Your task to perform on an android device: Search for the new lego star wars 2021 on Target Image 0: 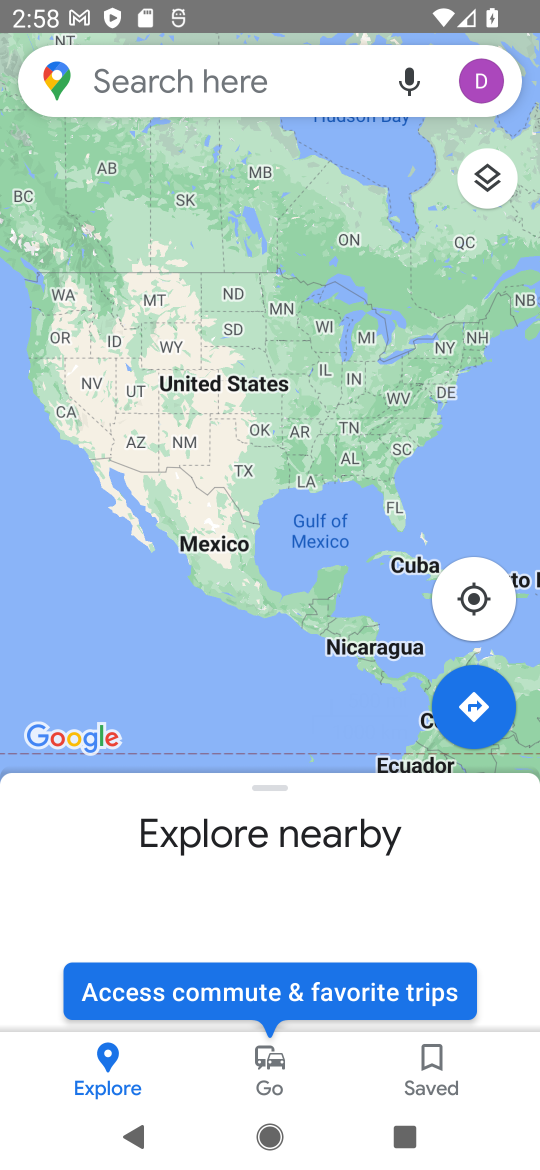
Step 0: press home button
Your task to perform on an android device: Search for the new lego star wars 2021 on Target Image 1: 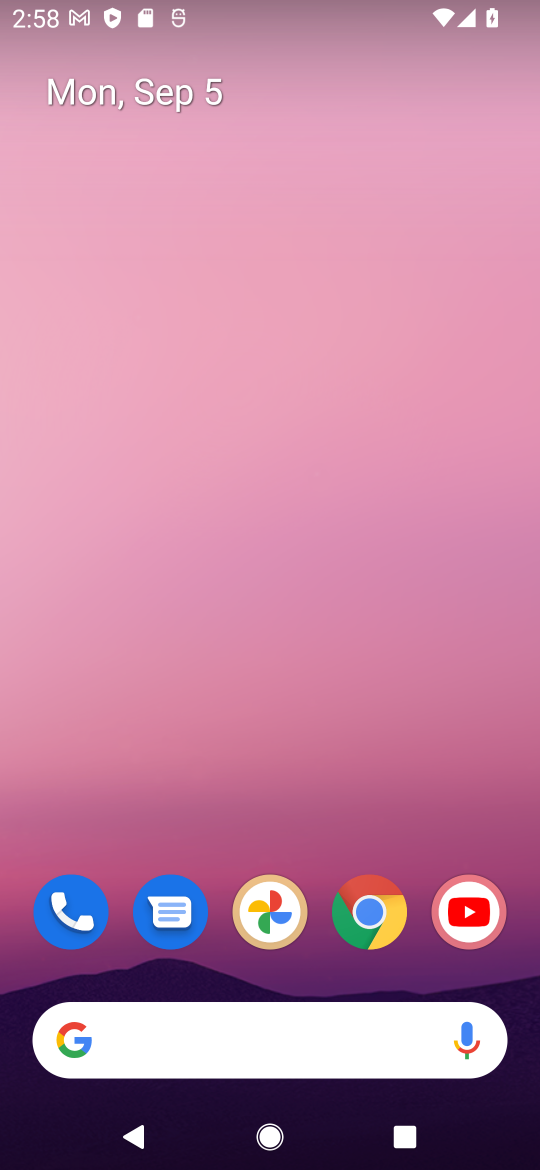
Step 1: click (367, 929)
Your task to perform on an android device: Search for the new lego star wars 2021 on Target Image 2: 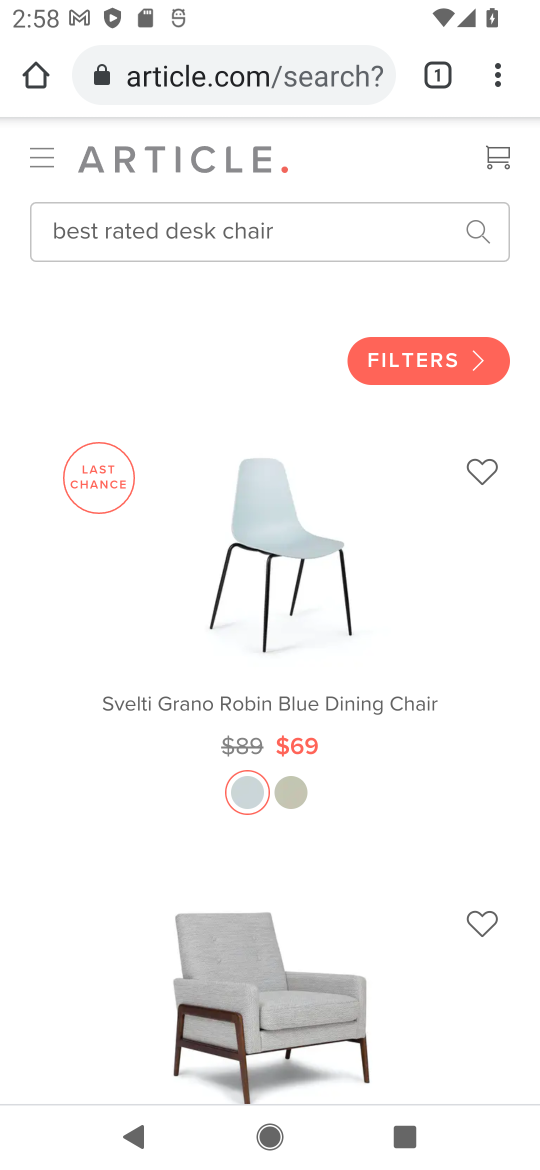
Step 2: click (284, 91)
Your task to perform on an android device: Search for the new lego star wars 2021 on Target Image 3: 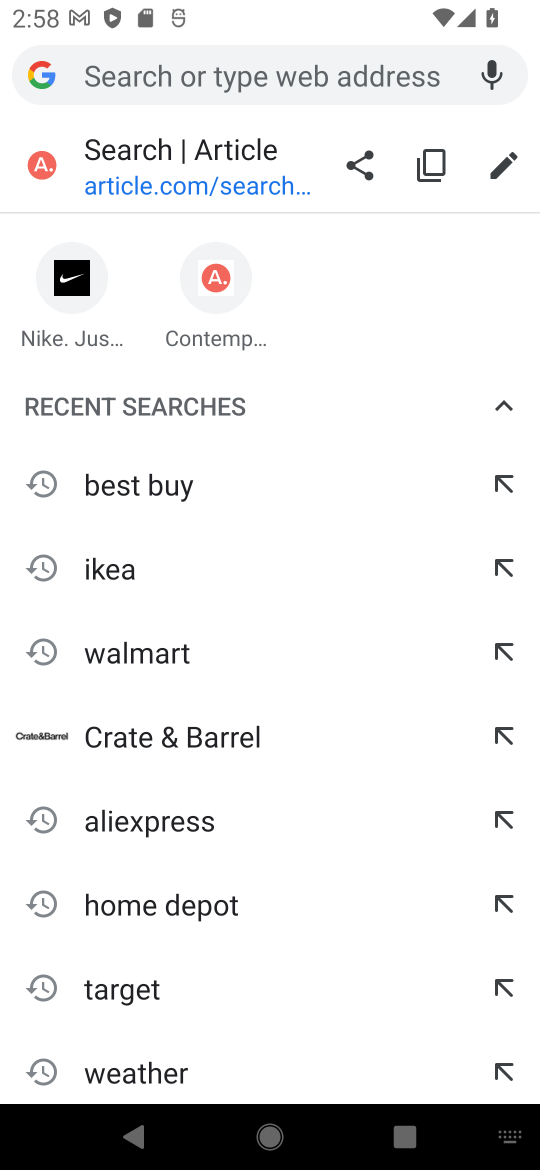
Step 3: type "target"
Your task to perform on an android device: Search for the new lego star wars 2021 on Target Image 4: 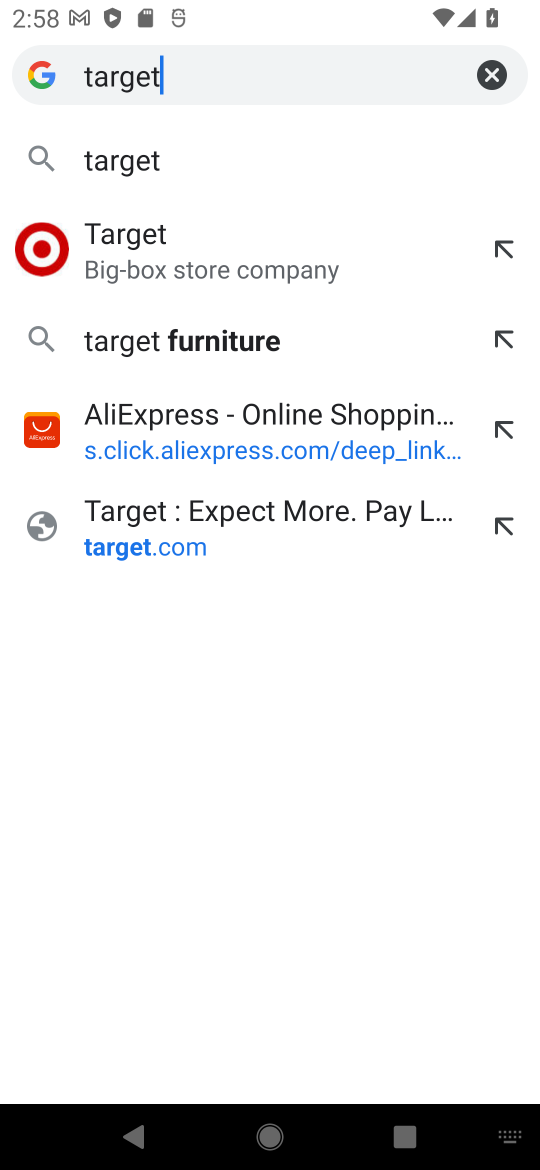
Step 4: click (249, 159)
Your task to perform on an android device: Search for the new lego star wars 2021 on Target Image 5: 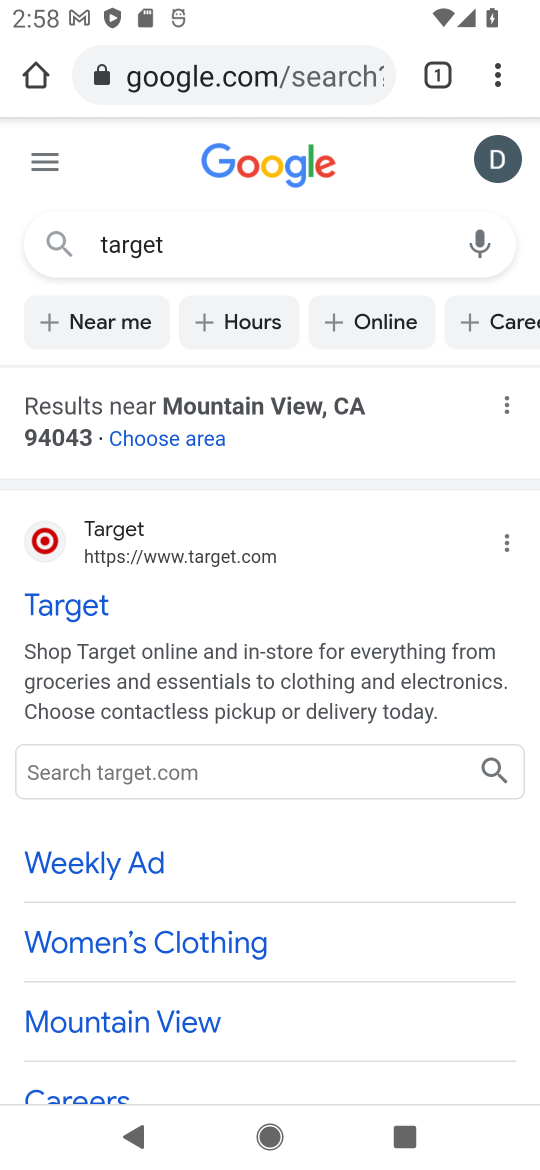
Step 5: click (86, 604)
Your task to perform on an android device: Search for the new lego star wars 2021 on Target Image 6: 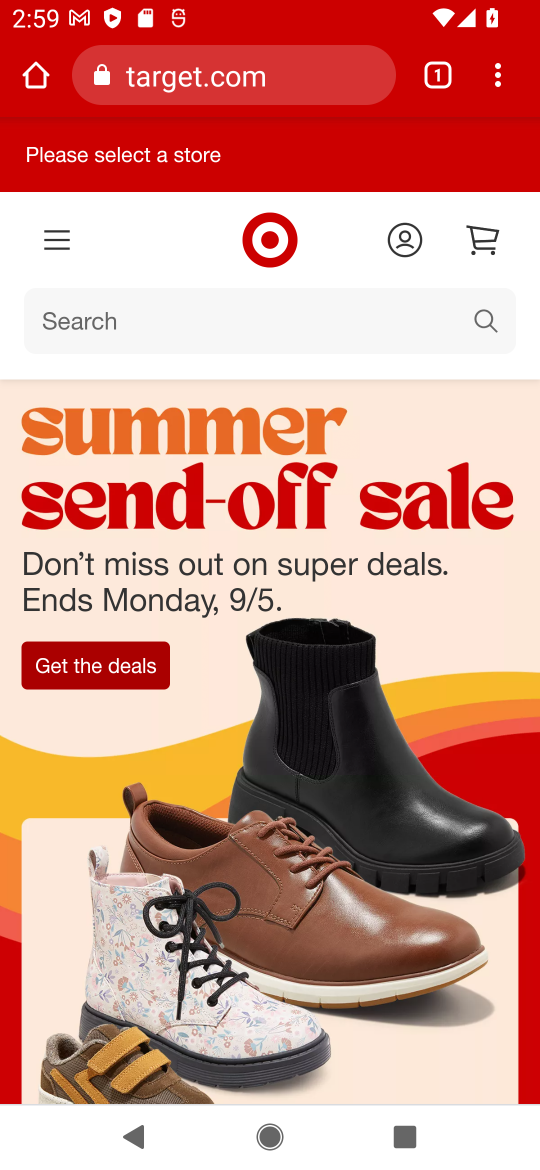
Step 6: click (363, 313)
Your task to perform on an android device: Search for the new lego star wars 2021 on Target Image 7: 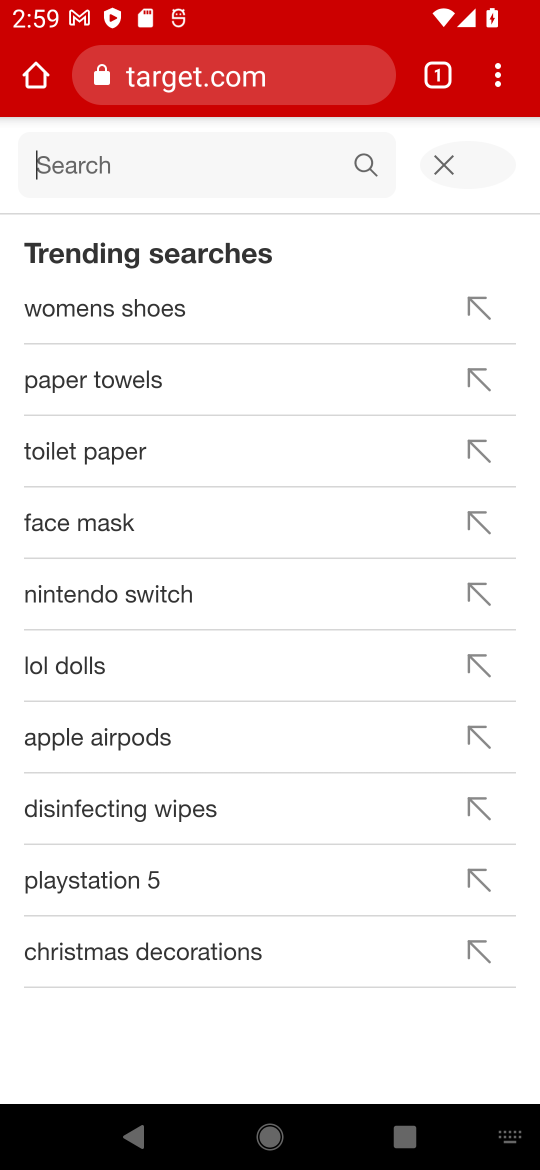
Step 7: type "new lego star wars 2021"
Your task to perform on an android device: Search for the new lego star wars 2021 on Target Image 8: 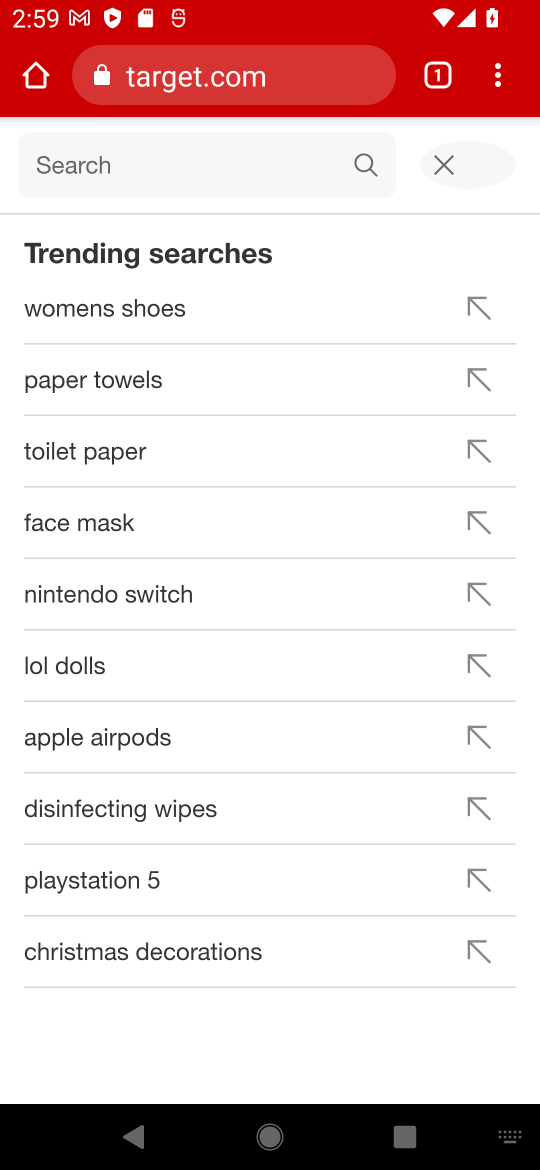
Step 8: type ""
Your task to perform on an android device: Search for the new lego star wars 2021 on Target Image 9: 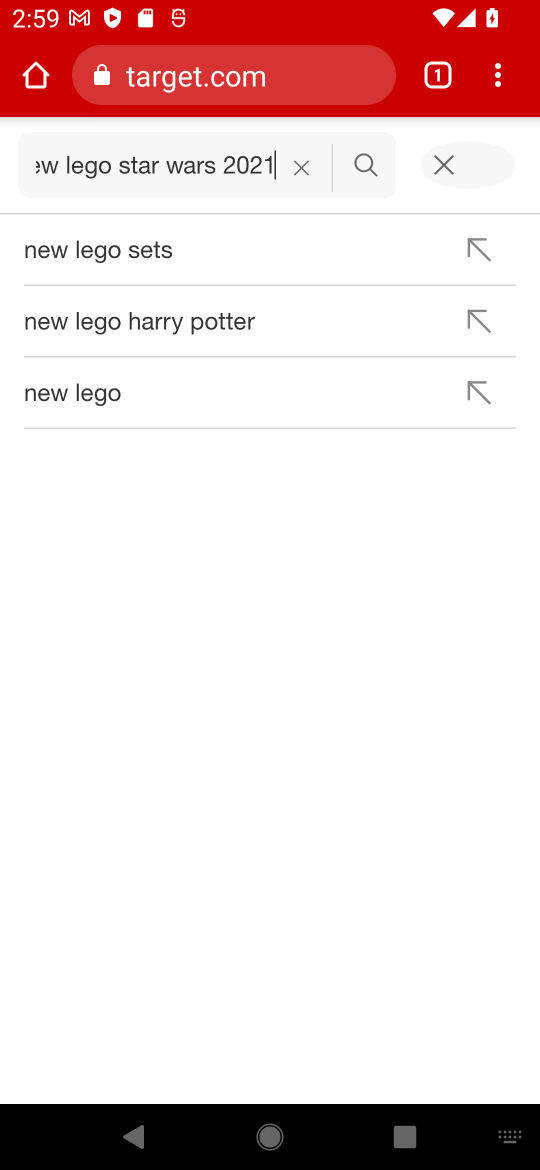
Step 9: press enter
Your task to perform on an android device: Search for the new lego star wars 2021 on Target Image 10: 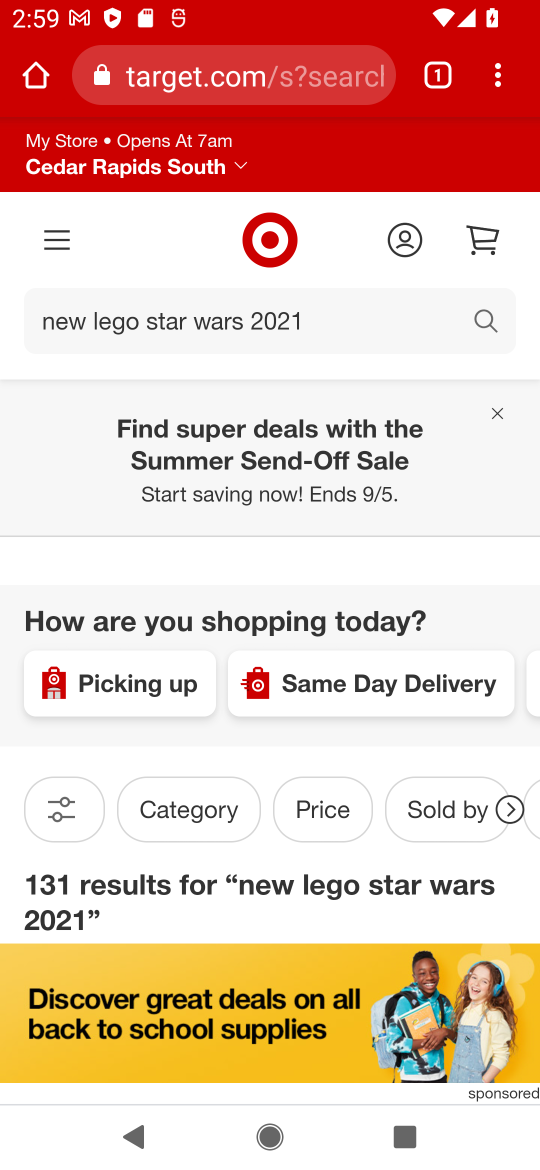
Step 10: drag from (476, 882) to (424, 568)
Your task to perform on an android device: Search for the new lego star wars 2021 on Target Image 11: 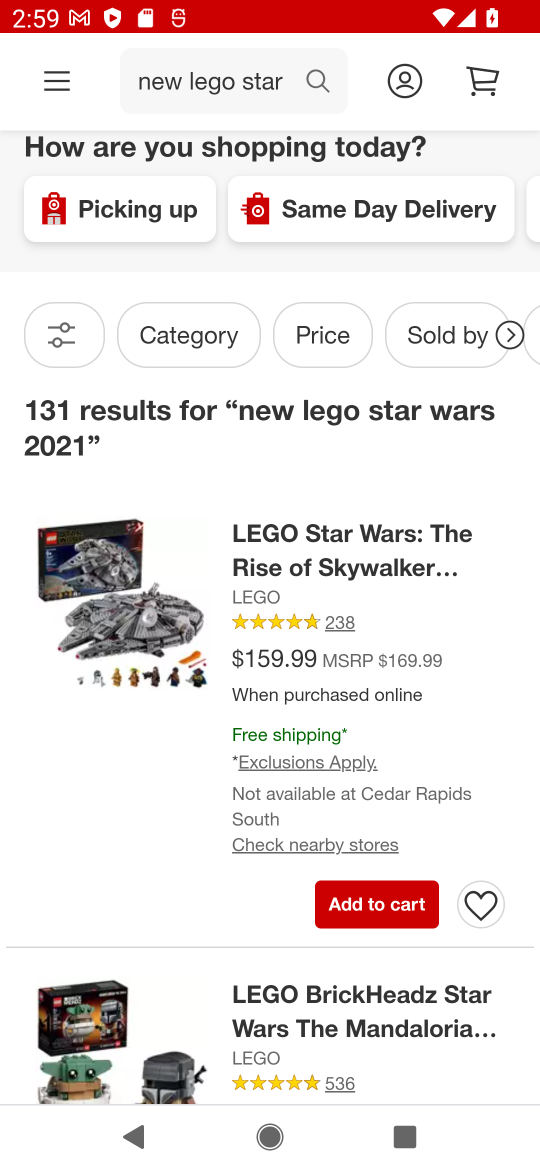
Step 11: click (67, 345)
Your task to perform on an android device: Search for the new lego star wars 2021 on Target Image 12: 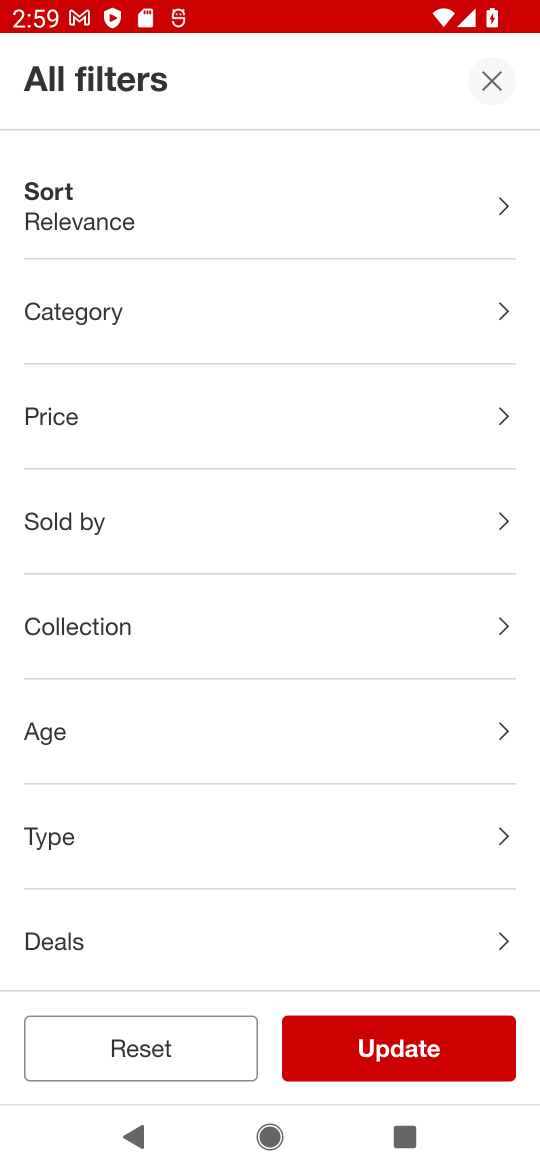
Step 12: drag from (313, 855) to (376, 198)
Your task to perform on an android device: Search for the new lego star wars 2021 on Target Image 13: 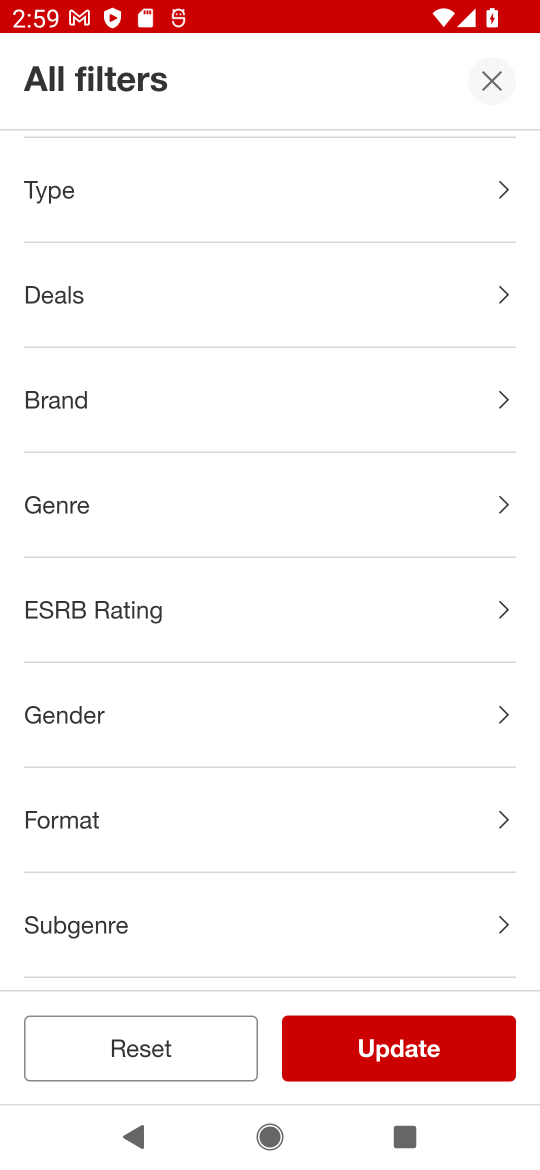
Step 13: drag from (363, 811) to (420, 974)
Your task to perform on an android device: Search for the new lego star wars 2021 on Target Image 14: 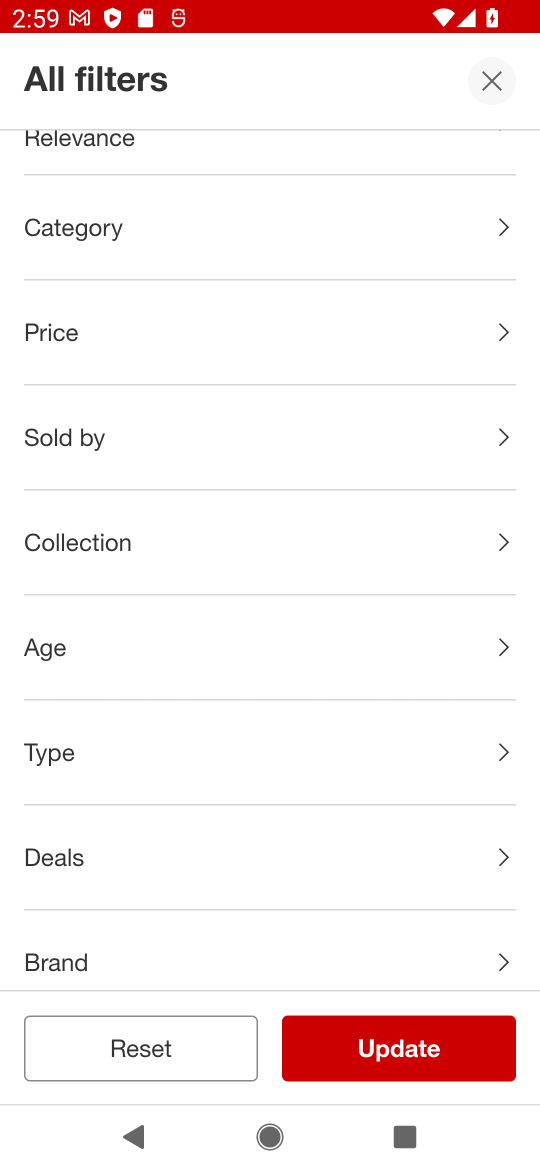
Step 14: drag from (324, 380) to (385, 680)
Your task to perform on an android device: Search for the new lego star wars 2021 on Target Image 15: 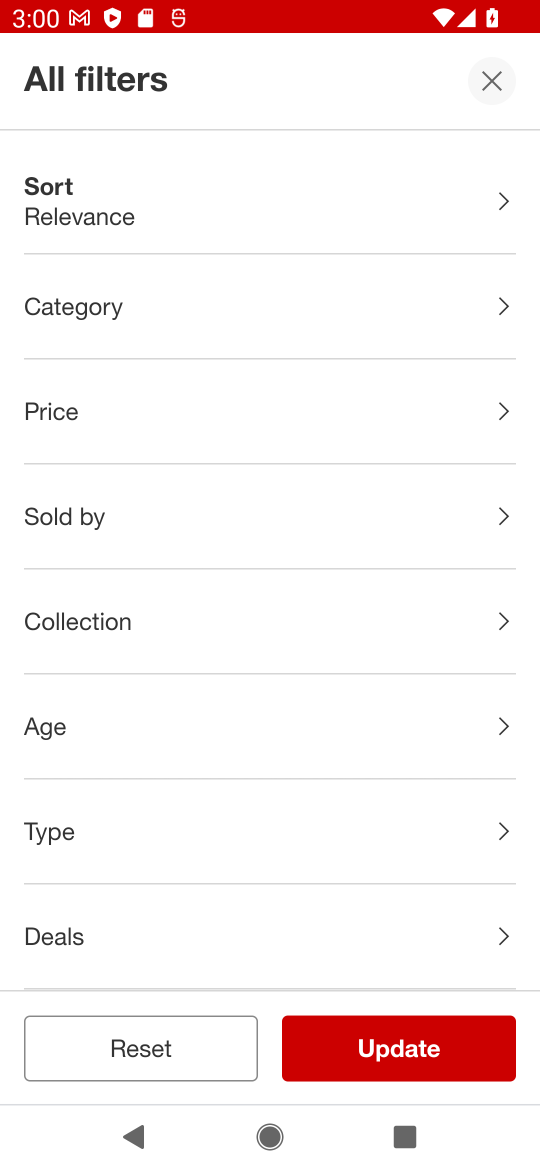
Step 15: click (453, 223)
Your task to perform on an android device: Search for the new lego star wars 2021 on Target Image 16: 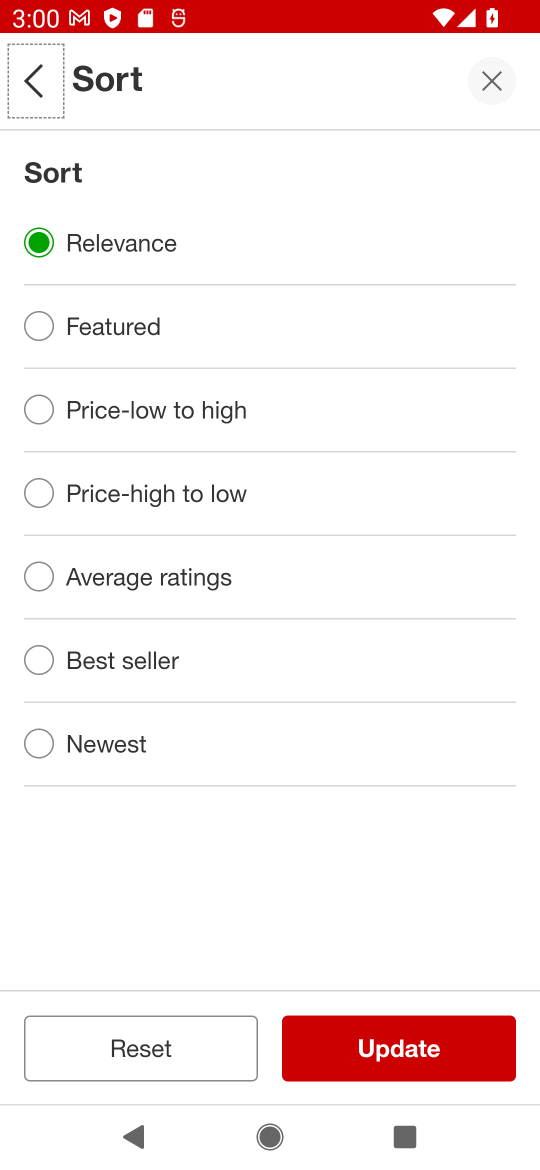
Step 16: click (124, 756)
Your task to perform on an android device: Search for the new lego star wars 2021 on Target Image 17: 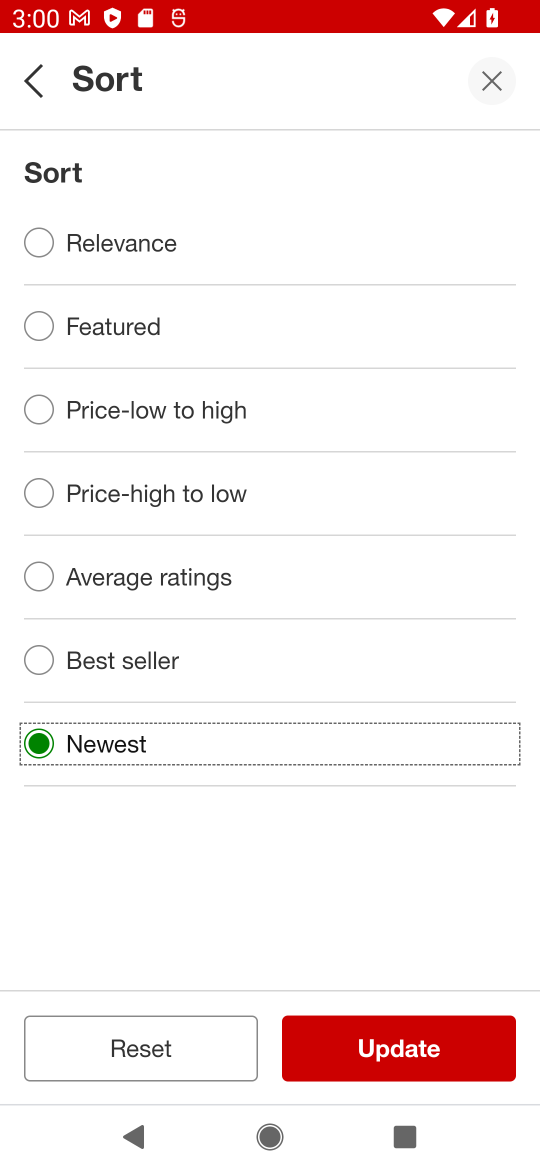
Step 17: click (419, 1071)
Your task to perform on an android device: Search for the new lego star wars 2021 on Target Image 18: 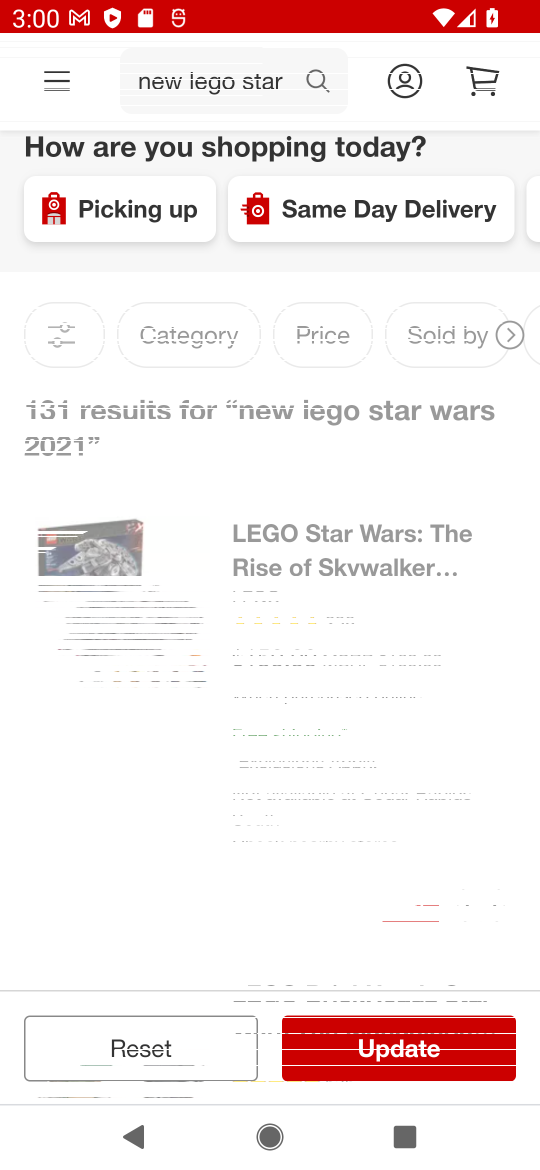
Step 18: drag from (292, 644) to (340, 773)
Your task to perform on an android device: Search for the new lego star wars 2021 on Target Image 19: 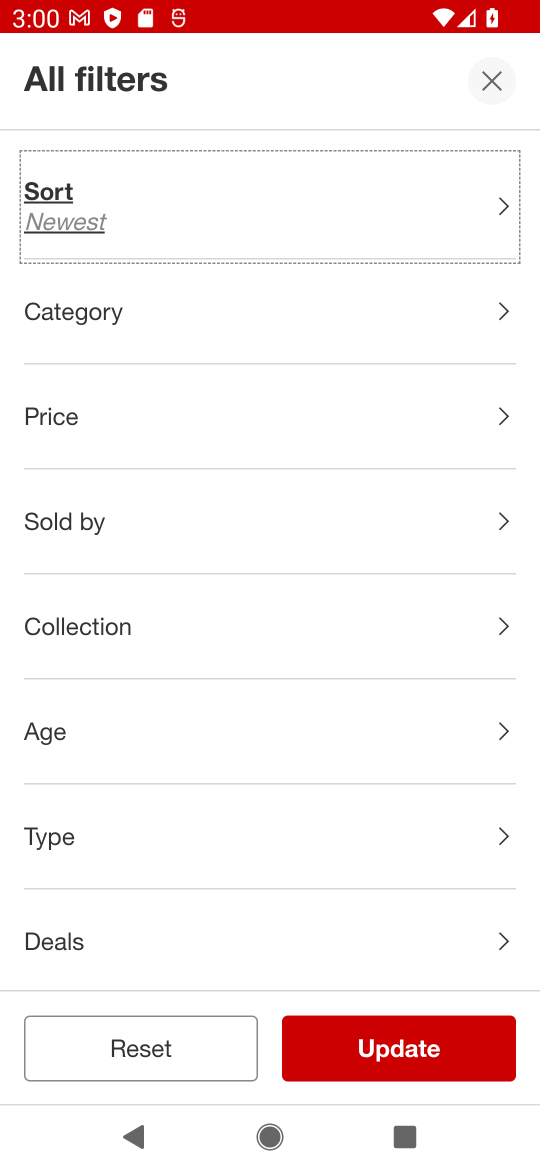
Step 19: click (444, 1053)
Your task to perform on an android device: Search for the new lego star wars 2021 on Target Image 20: 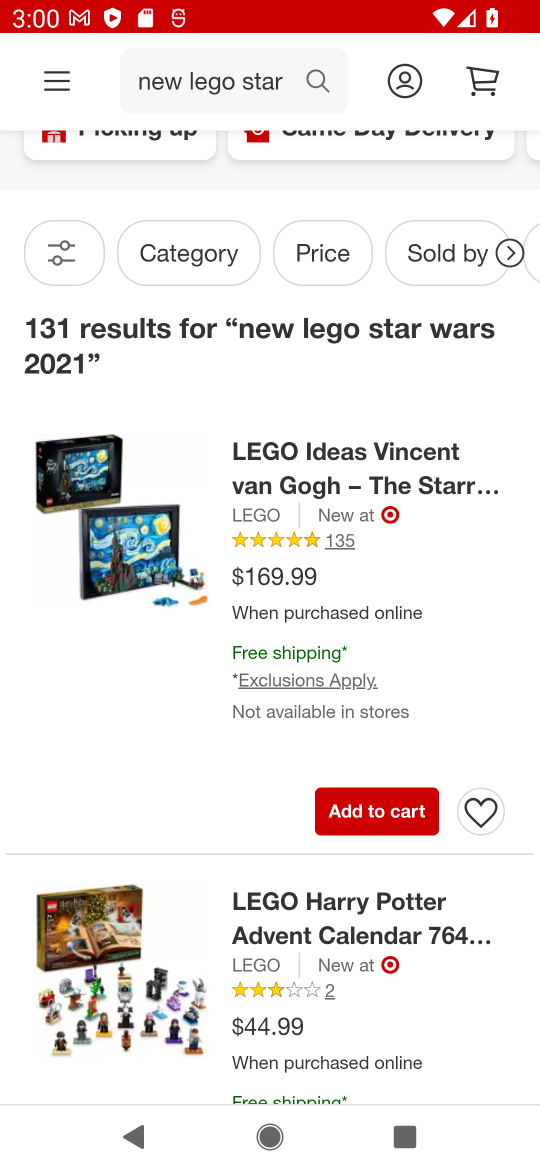
Step 20: task complete